Your task to perform on an android device: Add "logitech g903" to the cart on target.com Image 0: 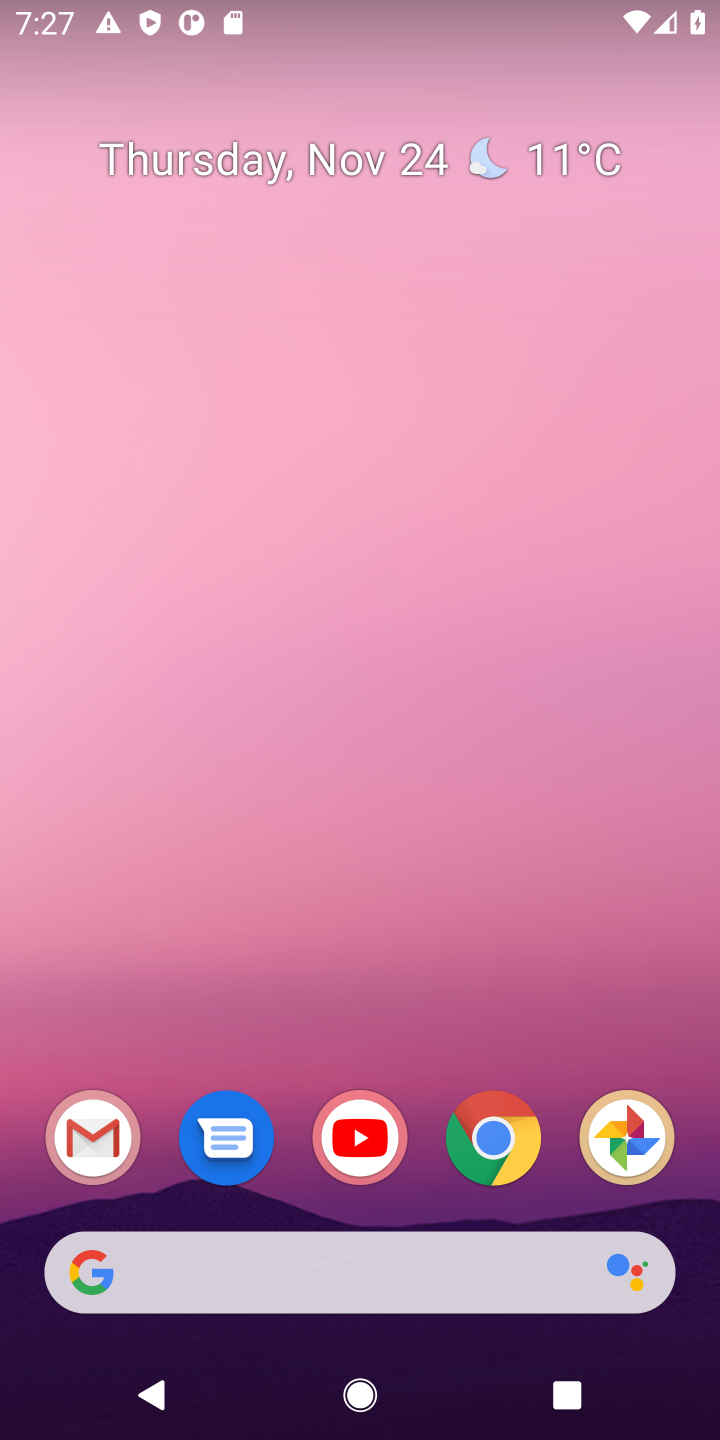
Step 0: click (423, 1270)
Your task to perform on an android device: Add "logitech g903" to the cart on target.com Image 1: 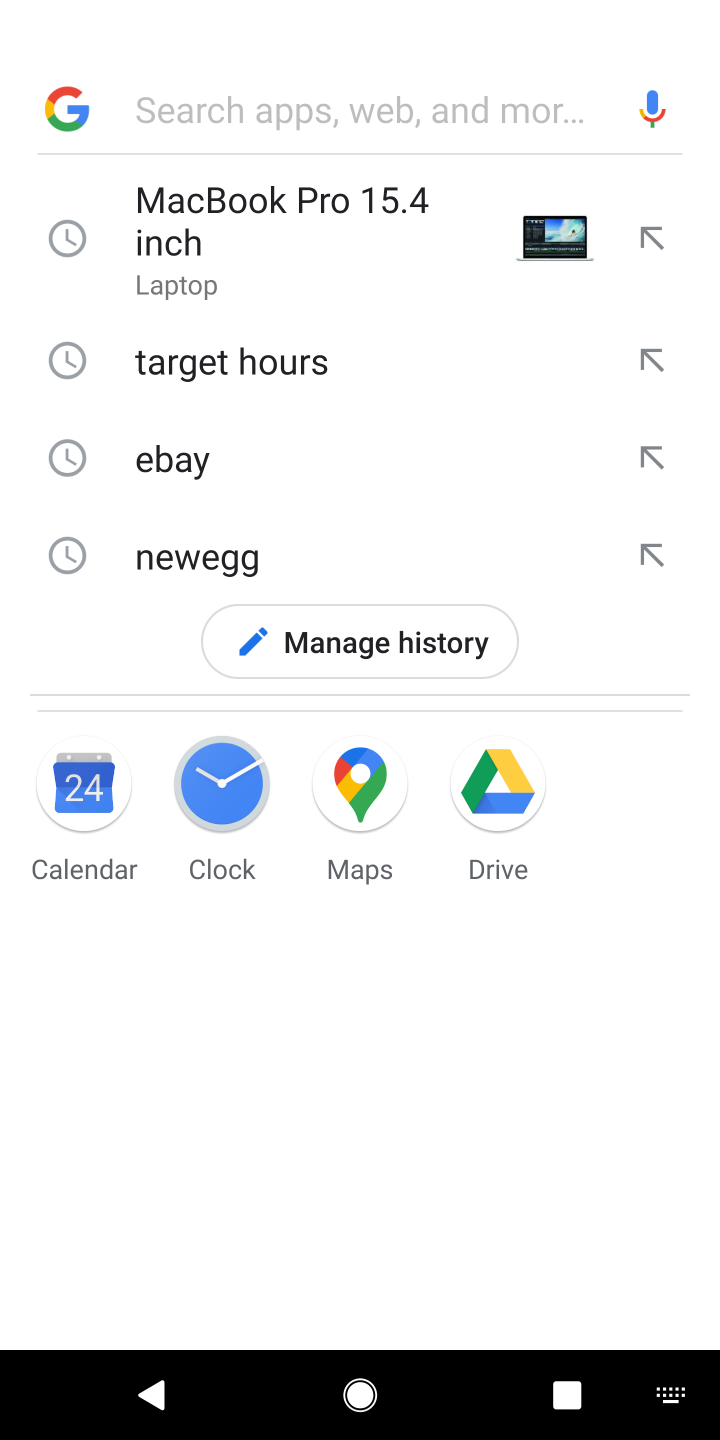
Step 1: type " target.com"
Your task to perform on an android device: Add "logitech g903" to the cart on target.com Image 2: 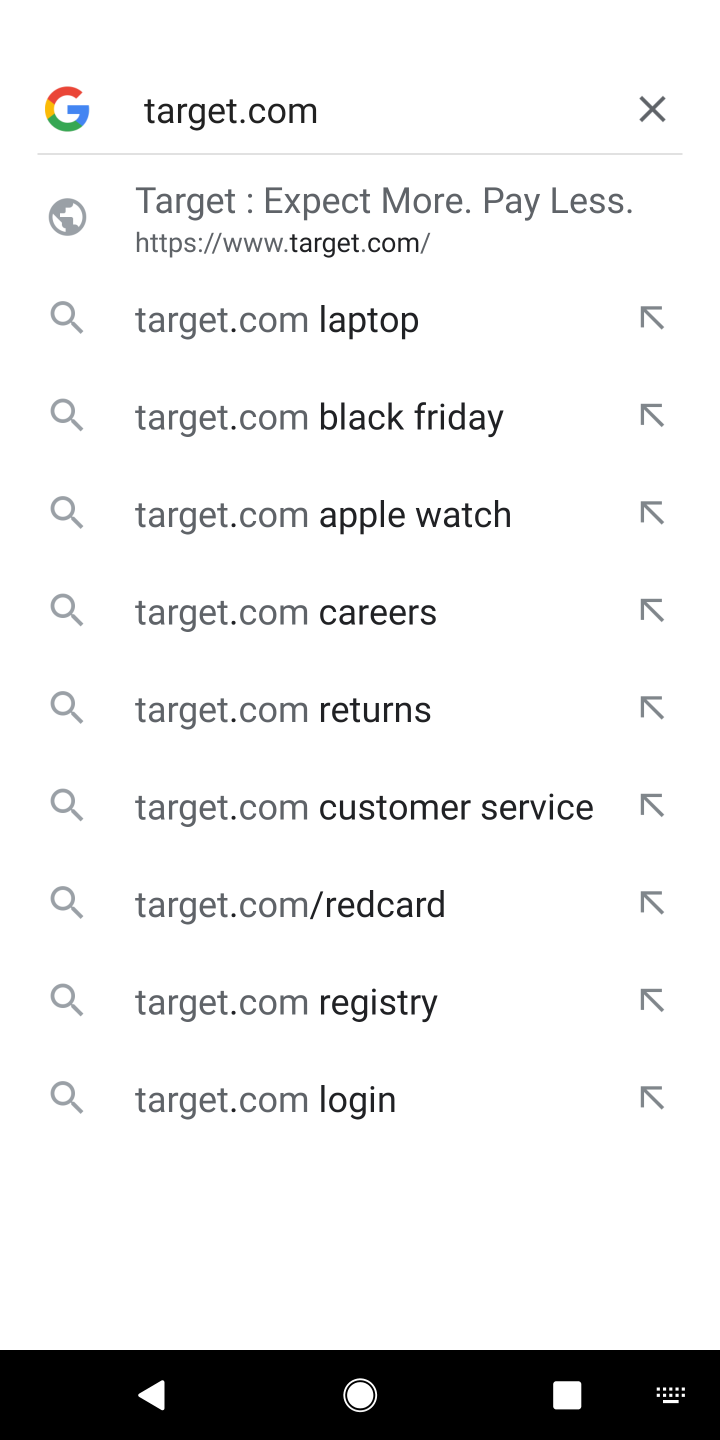
Step 2: click (288, 239)
Your task to perform on an android device: Add "logitech g903" to the cart on target.com Image 3: 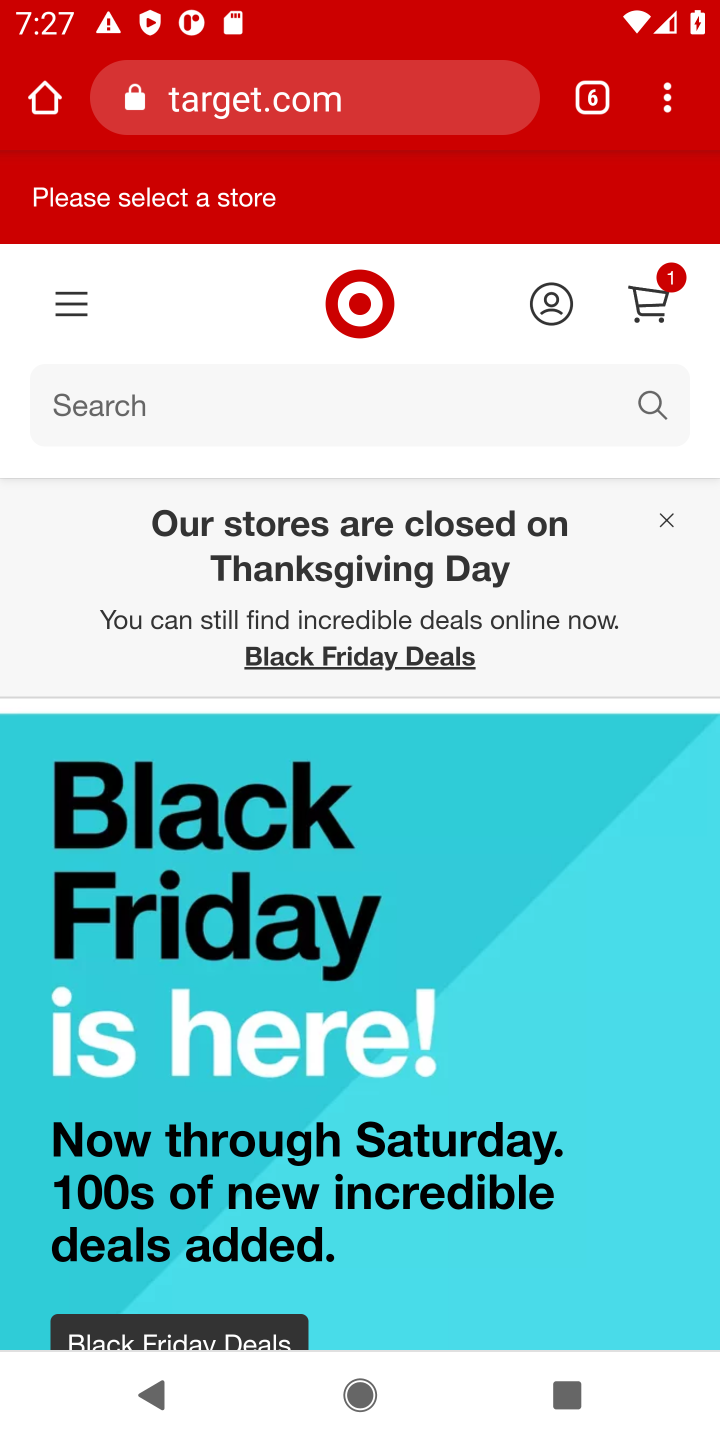
Step 3: click (199, 407)
Your task to perform on an android device: Add "logitech g903" to the cart on target.com Image 4: 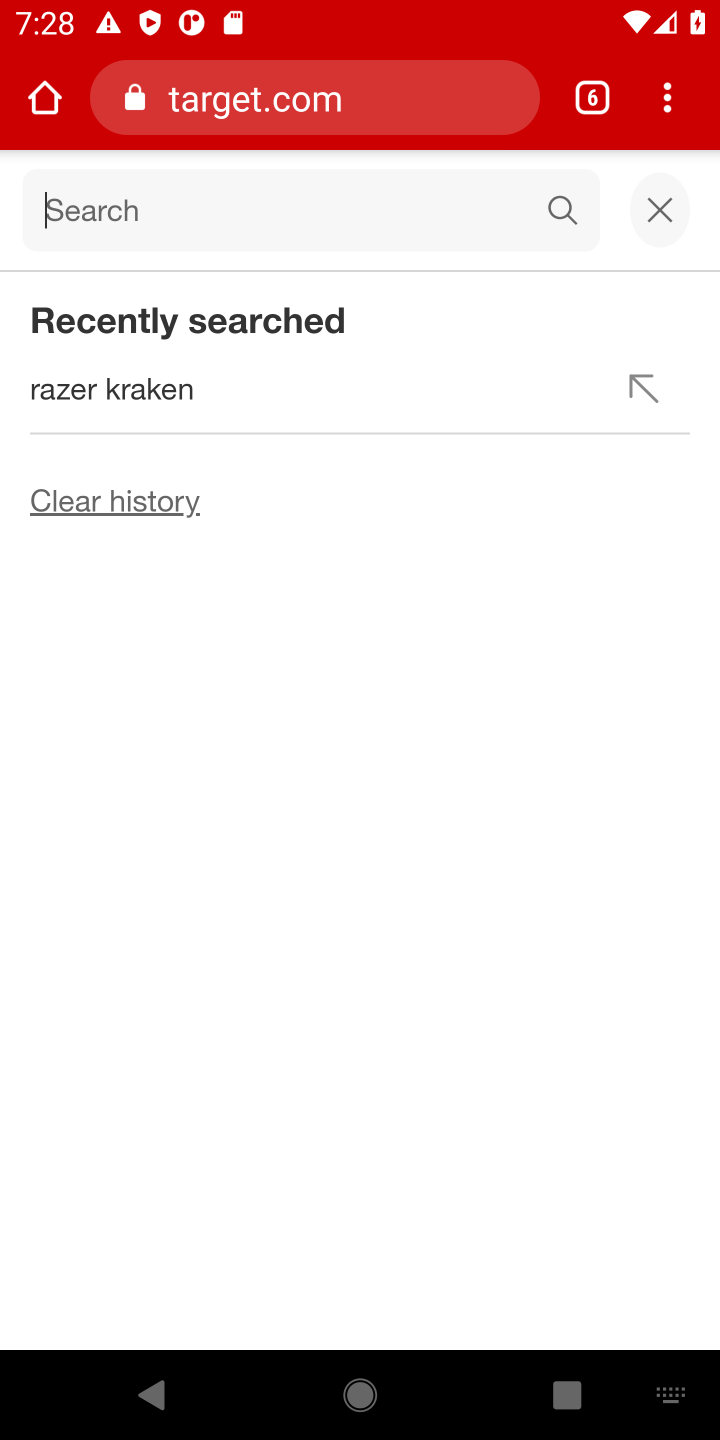
Step 4: type "logitech g903"
Your task to perform on an android device: Add "logitech g903" to the cart on target.com Image 5: 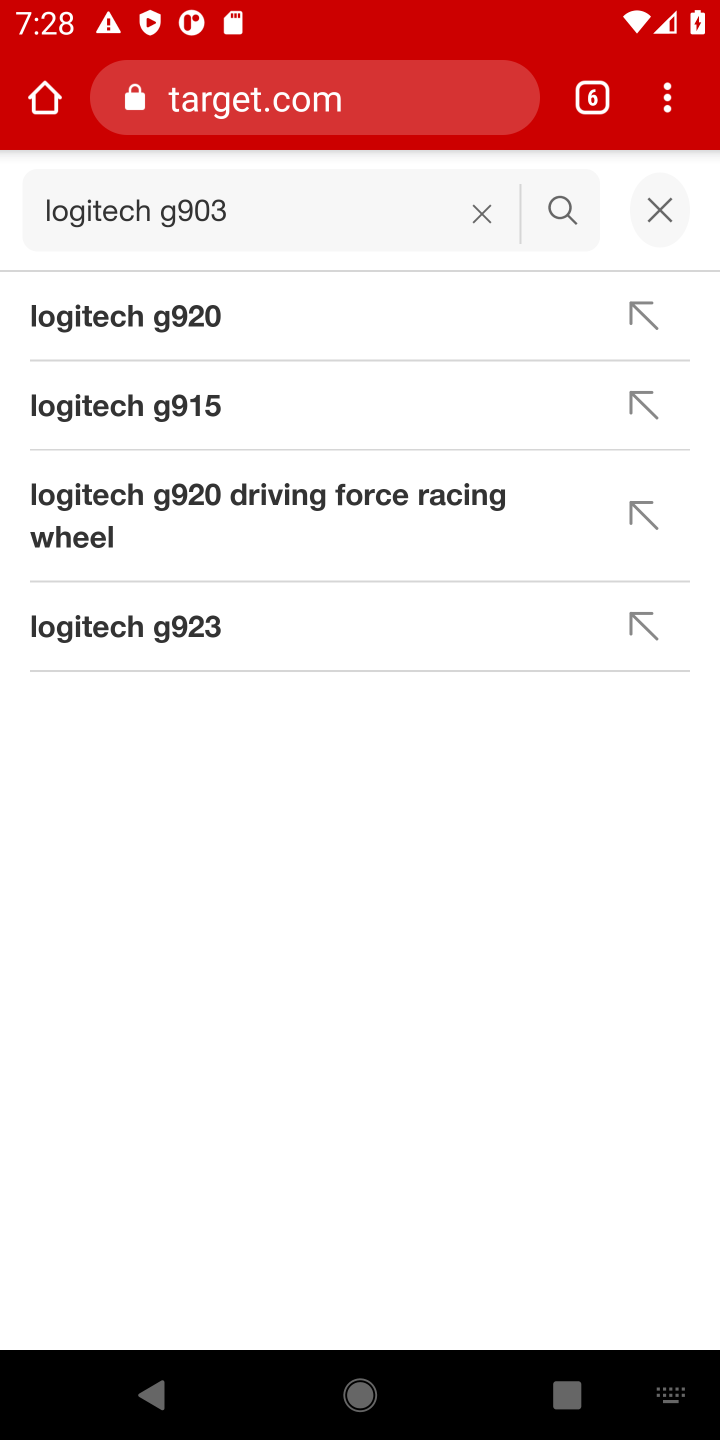
Step 5: click (566, 210)
Your task to perform on an android device: Add "logitech g903" to the cart on target.com Image 6: 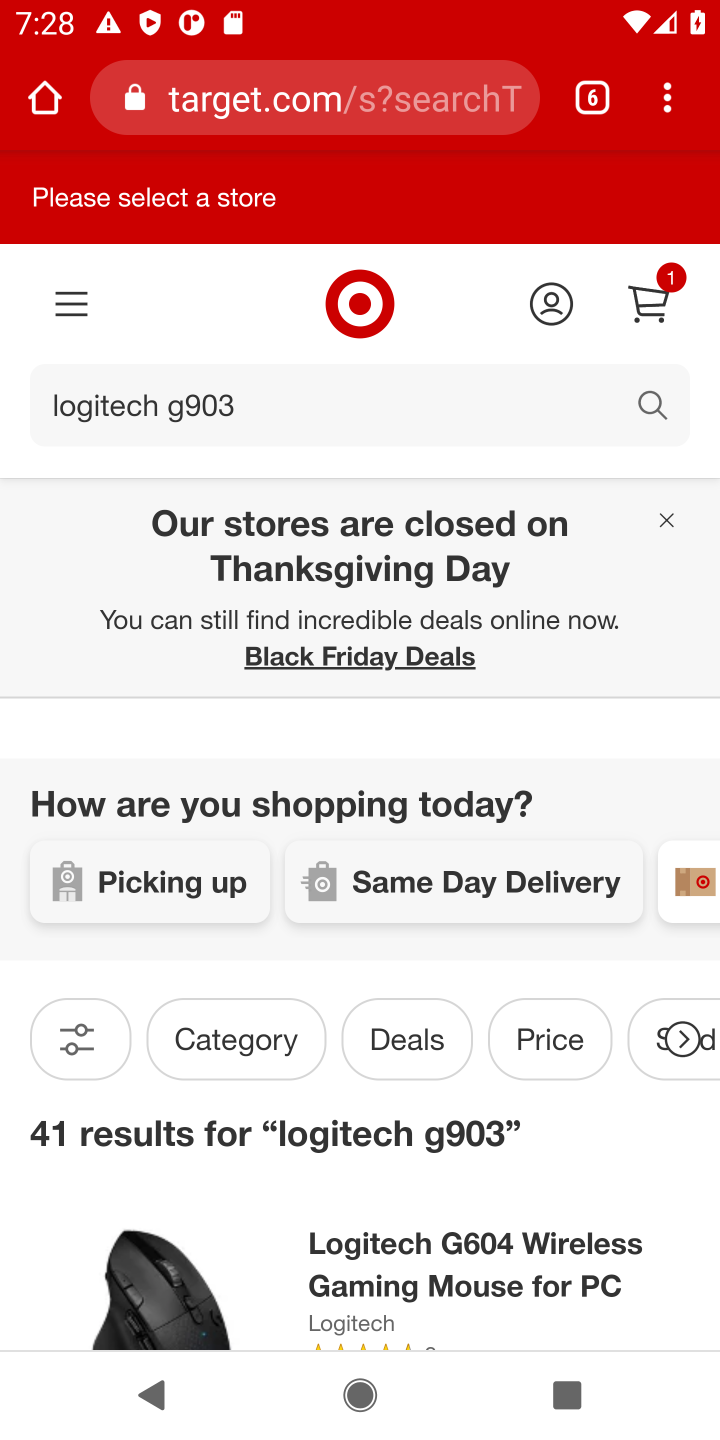
Step 6: drag from (400, 1154) to (459, 718)
Your task to perform on an android device: Add "logitech g903" to the cart on target.com Image 7: 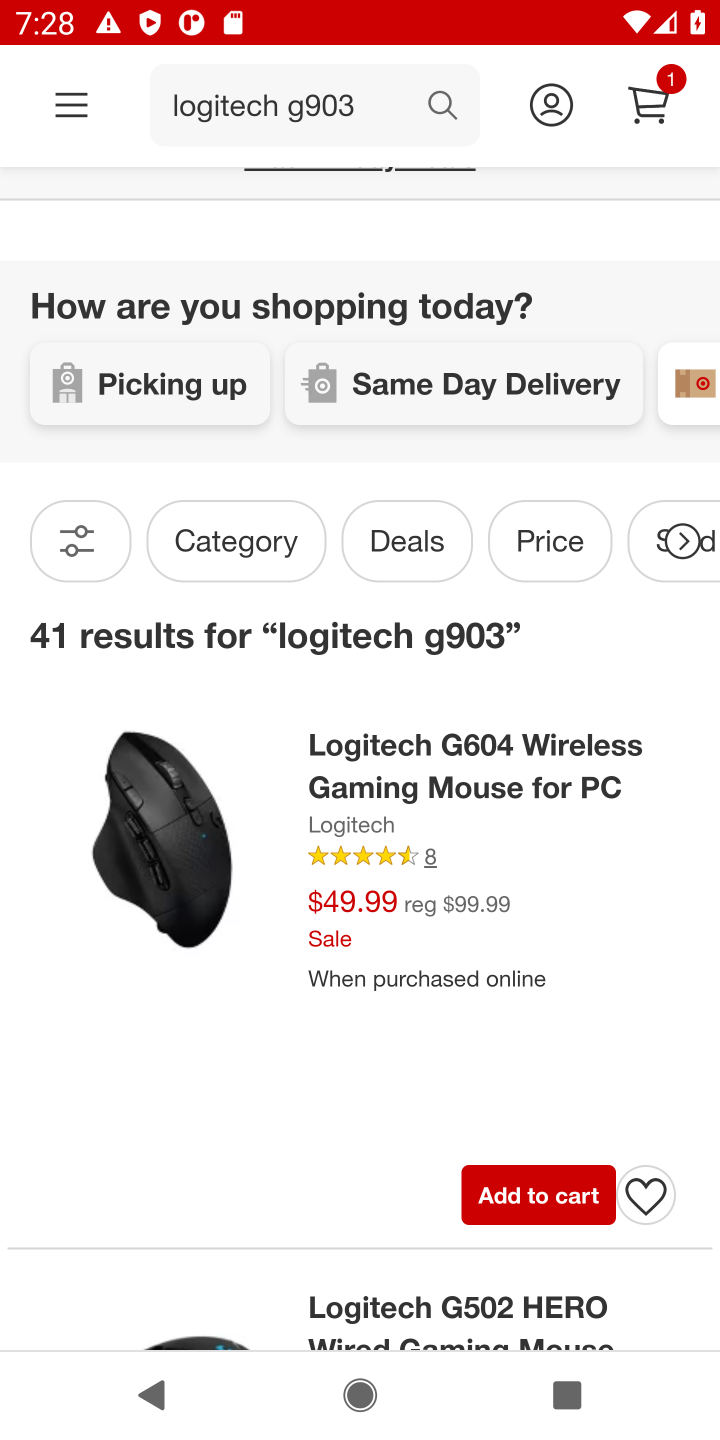
Step 7: click (518, 1199)
Your task to perform on an android device: Add "logitech g903" to the cart on target.com Image 8: 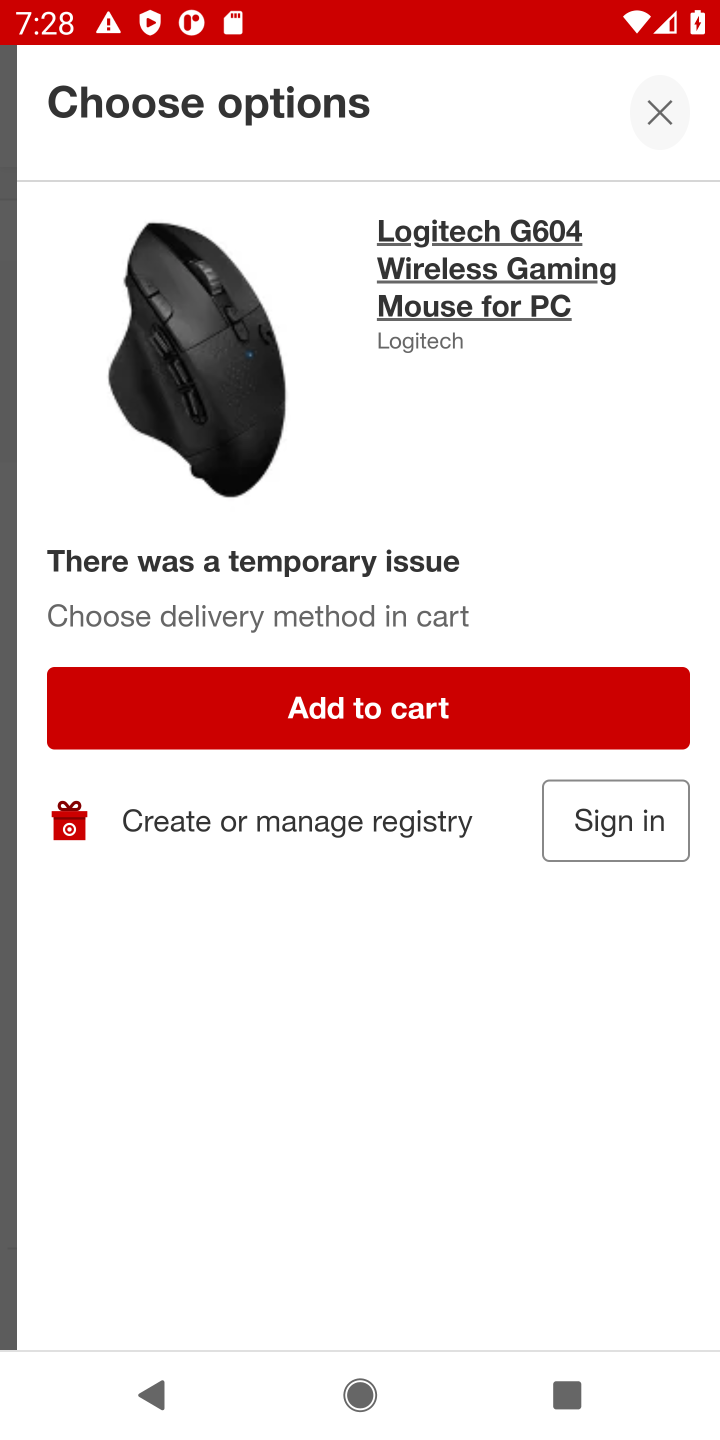
Step 8: click (337, 713)
Your task to perform on an android device: Add "logitech g903" to the cart on target.com Image 9: 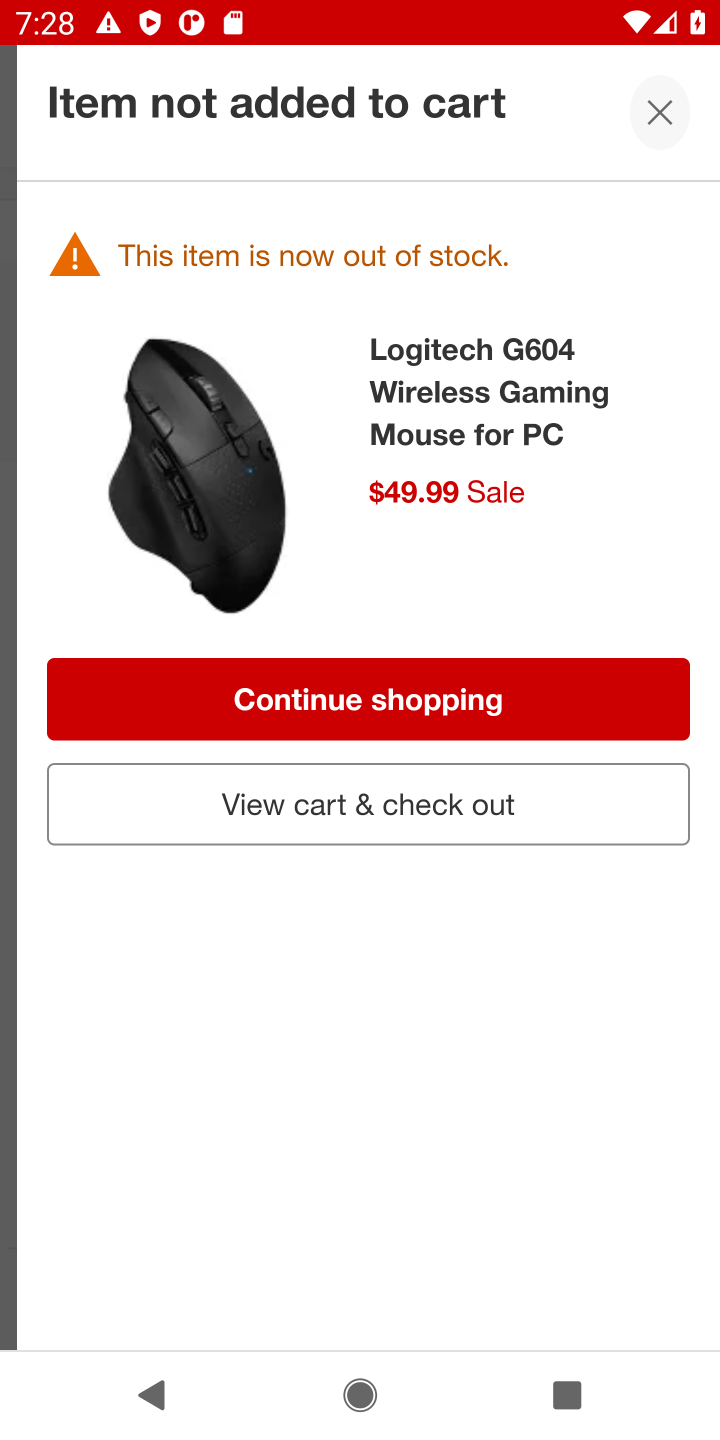
Step 9: task complete